Your task to perform on an android device: Set the phone to "Do not disturb". Image 0: 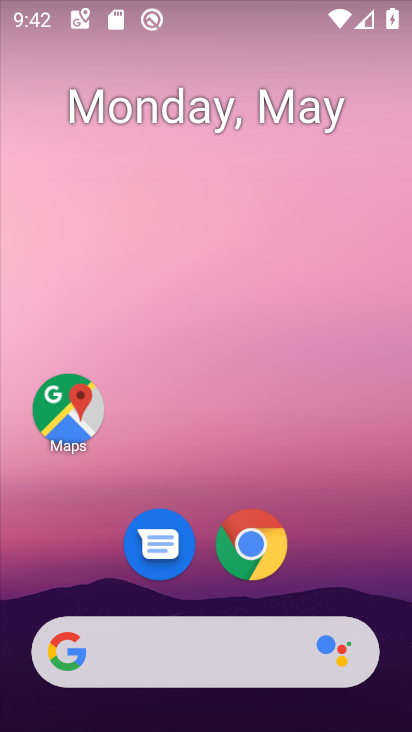
Step 0: drag from (357, 556) to (359, 152)
Your task to perform on an android device: Set the phone to "Do not disturb". Image 1: 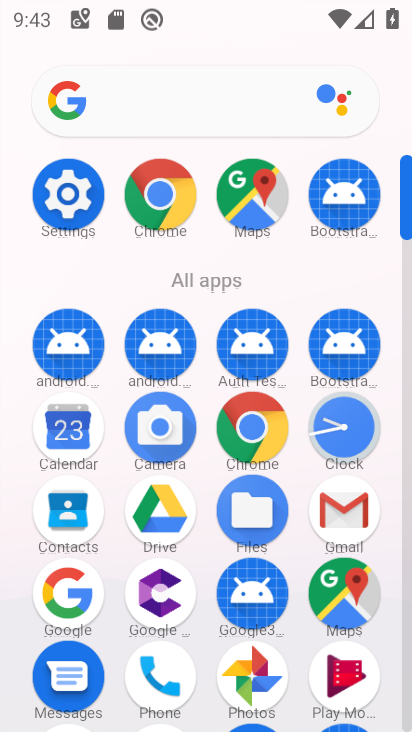
Step 1: click (72, 199)
Your task to perform on an android device: Set the phone to "Do not disturb". Image 2: 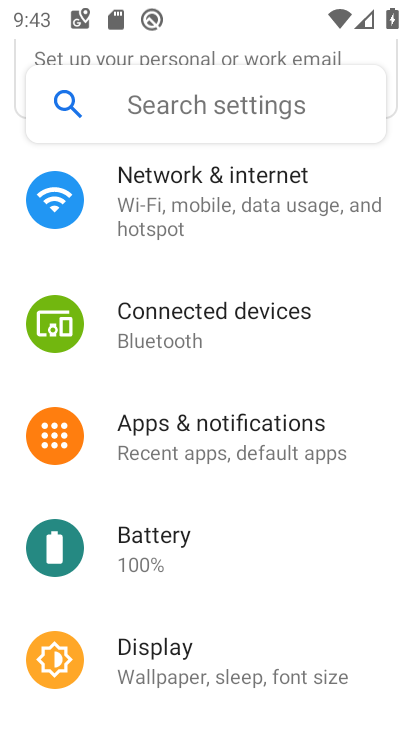
Step 2: drag from (231, 555) to (288, 170)
Your task to perform on an android device: Set the phone to "Do not disturb". Image 3: 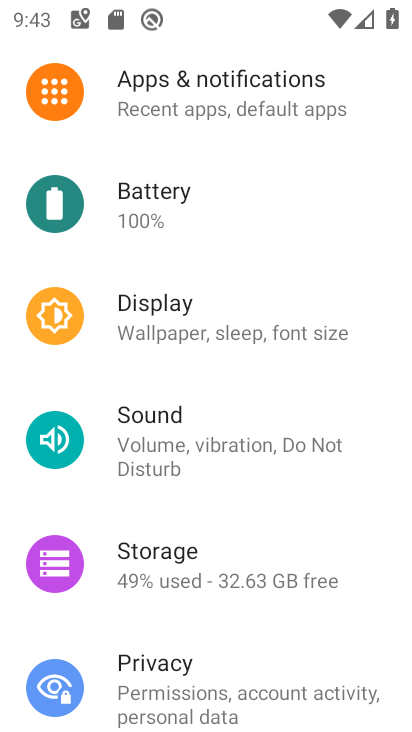
Step 3: click (229, 439)
Your task to perform on an android device: Set the phone to "Do not disturb". Image 4: 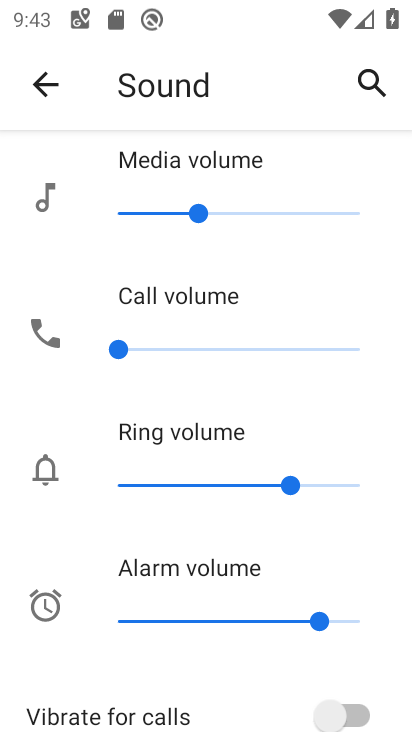
Step 4: drag from (198, 658) to (258, 231)
Your task to perform on an android device: Set the phone to "Do not disturb". Image 5: 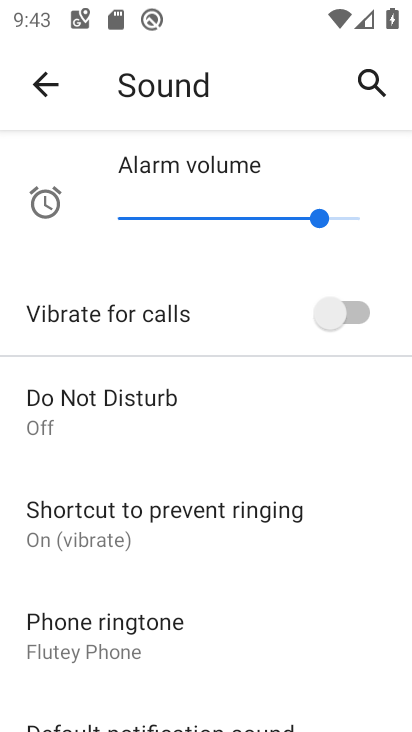
Step 5: click (106, 398)
Your task to perform on an android device: Set the phone to "Do not disturb". Image 6: 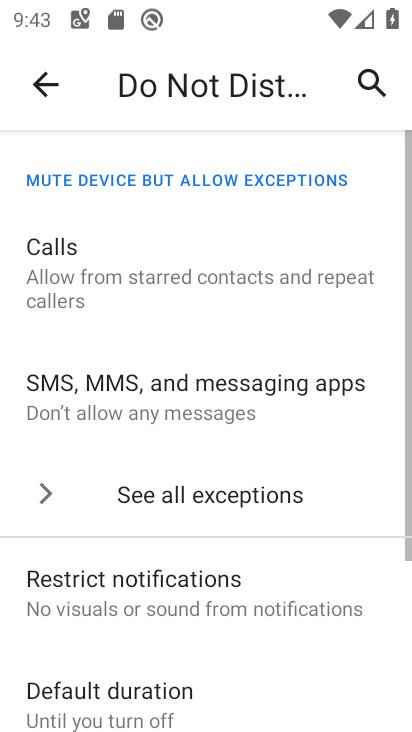
Step 6: drag from (266, 640) to (305, 276)
Your task to perform on an android device: Set the phone to "Do not disturb". Image 7: 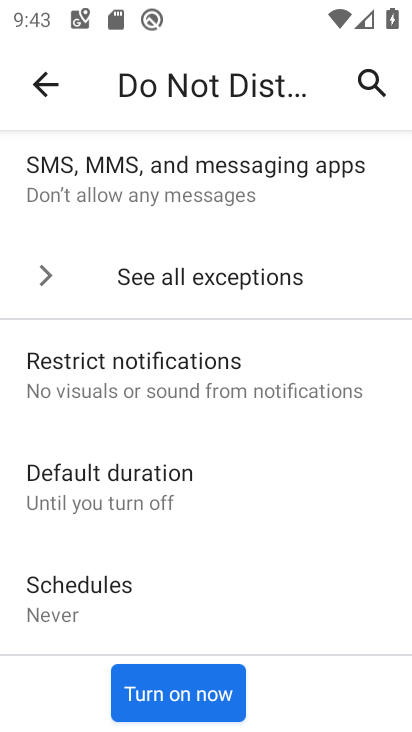
Step 7: click (190, 675)
Your task to perform on an android device: Set the phone to "Do not disturb". Image 8: 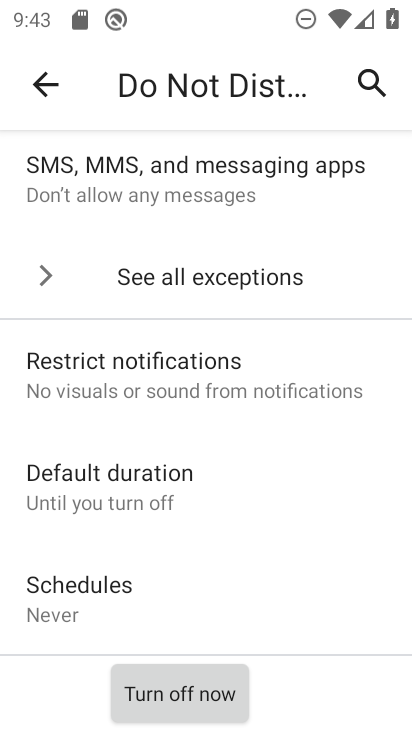
Step 8: task complete